Your task to perform on an android device: Go to battery settings Image 0: 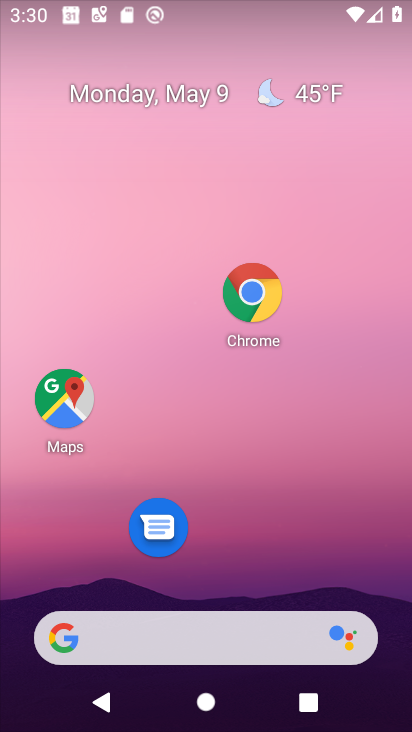
Step 0: click (397, 21)
Your task to perform on an android device: Go to battery settings Image 1: 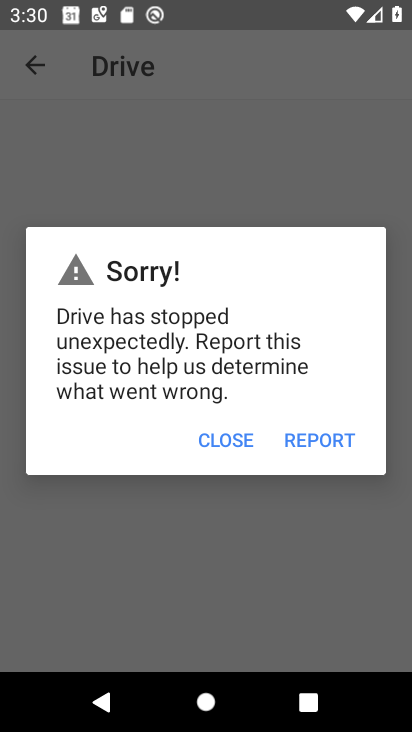
Step 1: press home button
Your task to perform on an android device: Go to battery settings Image 2: 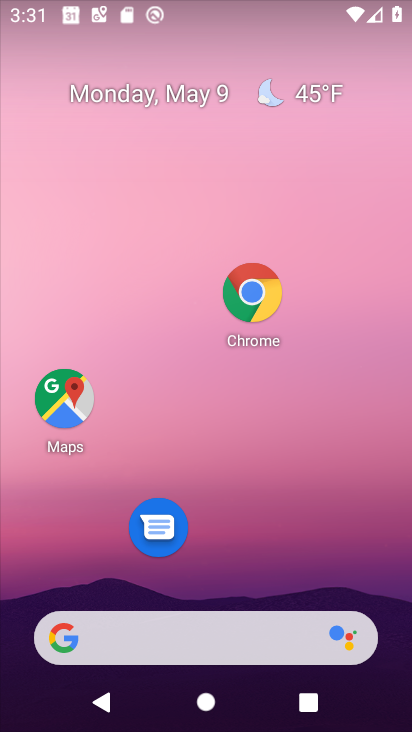
Step 2: drag from (256, 644) to (312, 137)
Your task to perform on an android device: Go to battery settings Image 3: 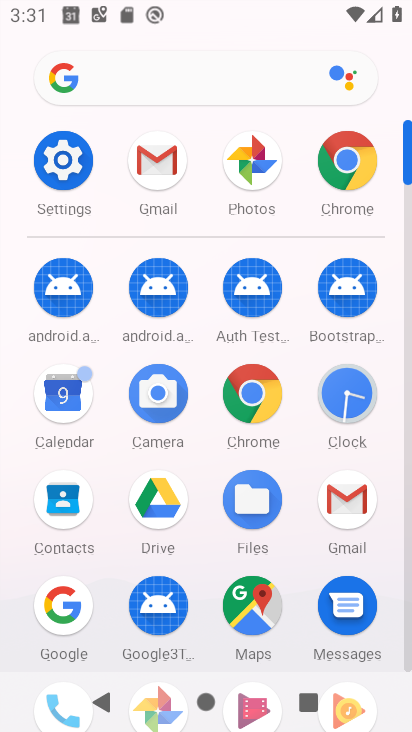
Step 3: click (57, 175)
Your task to perform on an android device: Go to battery settings Image 4: 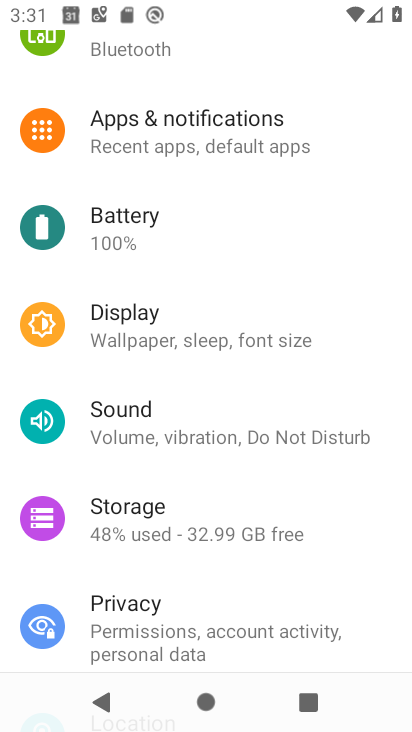
Step 4: click (178, 233)
Your task to perform on an android device: Go to battery settings Image 5: 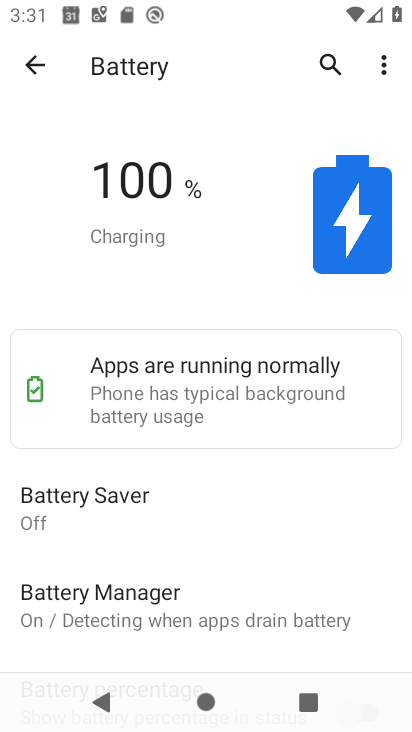
Step 5: task complete